Your task to perform on an android device: allow cookies in the chrome app Image 0: 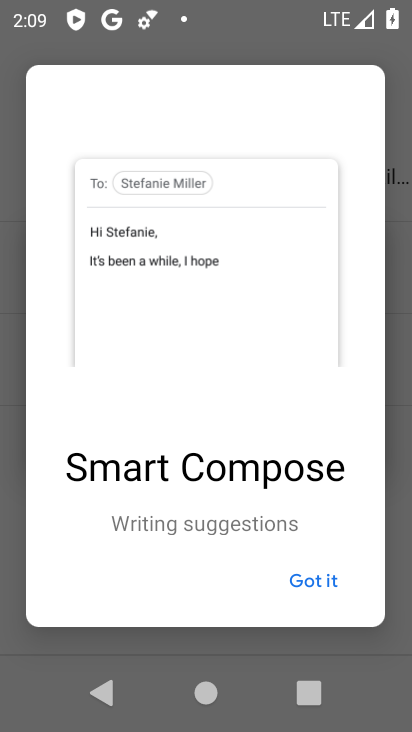
Step 0: press home button
Your task to perform on an android device: allow cookies in the chrome app Image 1: 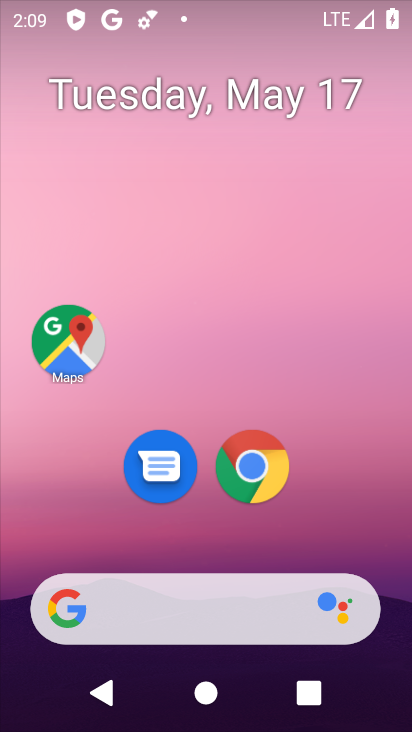
Step 1: drag from (362, 503) to (325, 76)
Your task to perform on an android device: allow cookies in the chrome app Image 2: 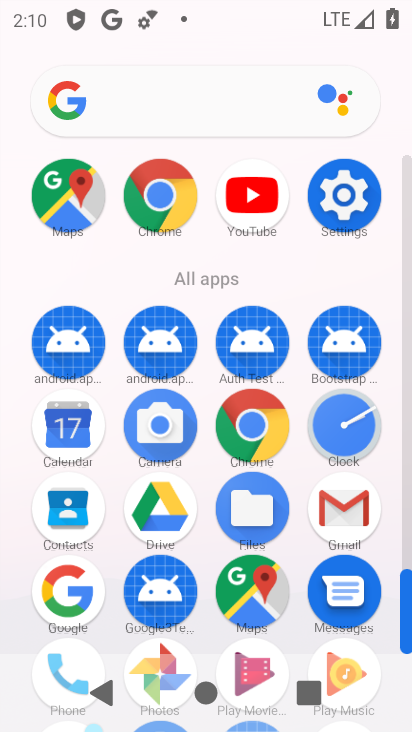
Step 2: click (169, 196)
Your task to perform on an android device: allow cookies in the chrome app Image 3: 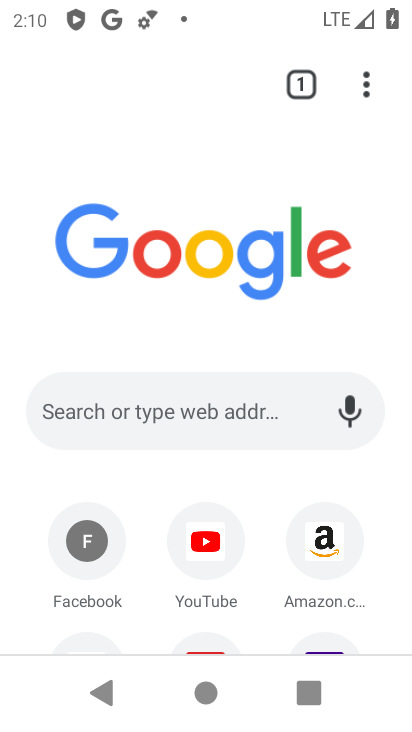
Step 3: drag from (371, 86) to (127, 510)
Your task to perform on an android device: allow cookies in the chrome app Image 4: 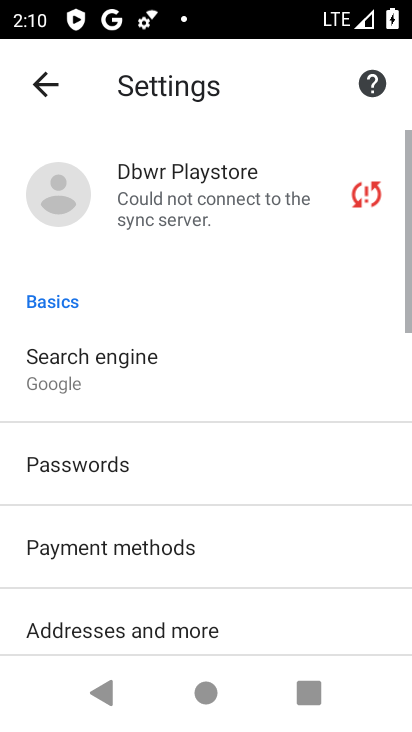
Step 4: drag from (216, 468) to (217, 77)
Your task to perform on an android device: allow cookies in the chrome app Image 5: 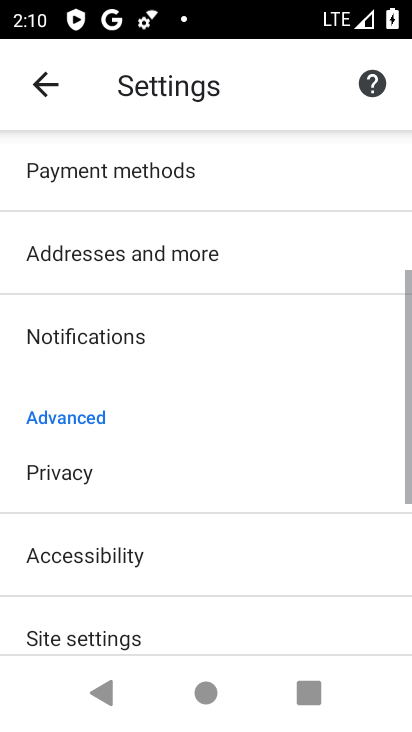
Step 5: drag from (159, 452) to (210, 100)
Your task to perform on an android device: allow cookies in the chrome app Image 6: 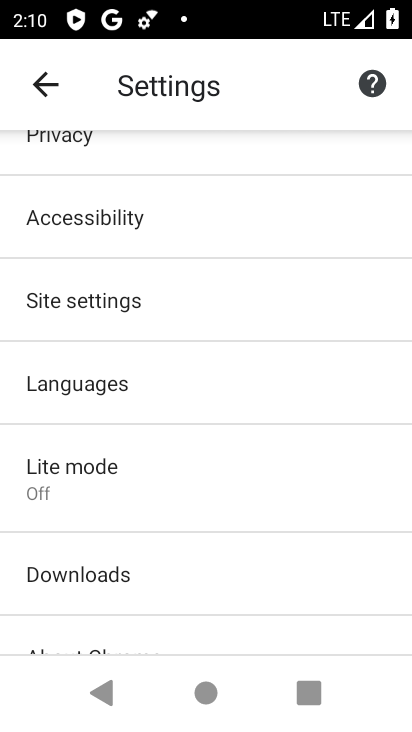
Step 6: click (141, 315)
Your task to perform on an android device: allow cookies in the chrome app Image 7: 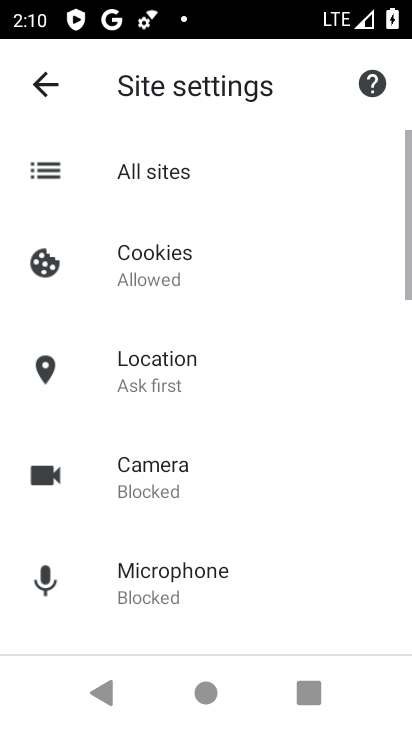
Step 7: click (186, 289)
Your task to perform on an android device: allow cookies in the chrome app Image 8: 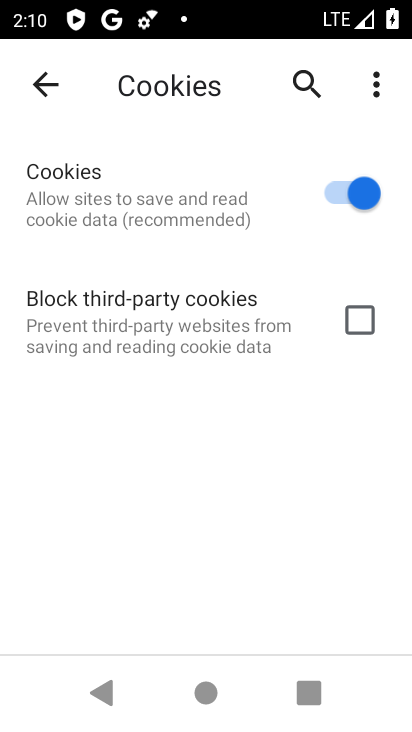
Step 8: task complete